Your task to perform on an android device: turn smart compose on in the gmail app Image 0: 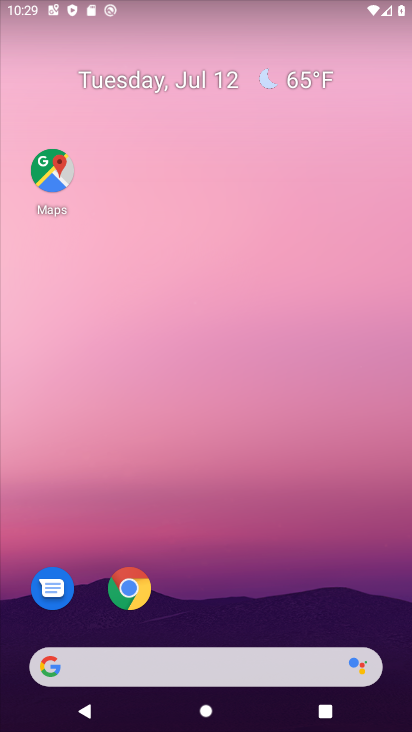
Step 0: drag from (28, 707) to (186, 0)
Your task to perform on an android device: turn smart compose on in the gmail app Image 1: 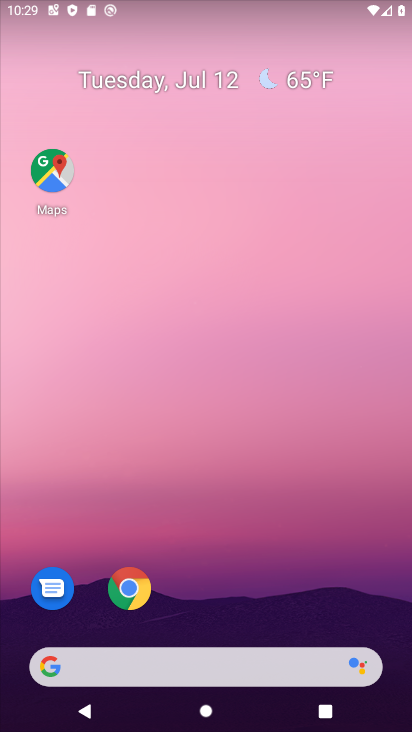
Step 1: drag from (14, 709) to (129, 282)
Your task to perform on an android device: turn smart compose on in the gmail app Image 2: 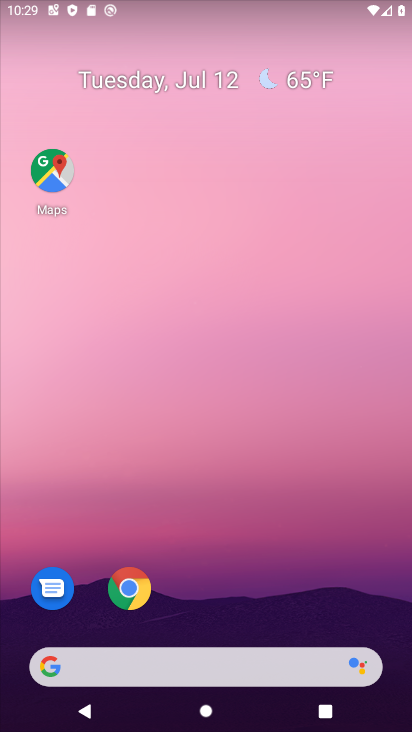
Step 2: drag from (35, 719) to (168, 1)
Your task to perform on an android device: turn smart compose on in the gmail app Image 3: 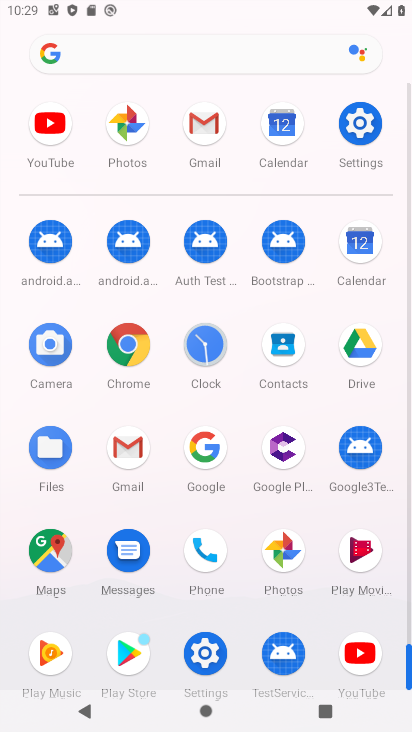
Step 3: click (117, 453)
Your task to perform on an android device: turn smart compose on in the gmail app Image 4: 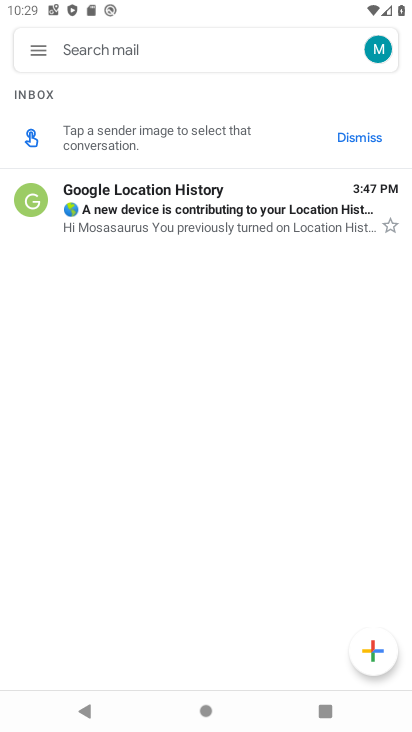
Step 4: click (26, 48)
Your task to perform on an android device: turn smart compose on in the gmail app Image 5: 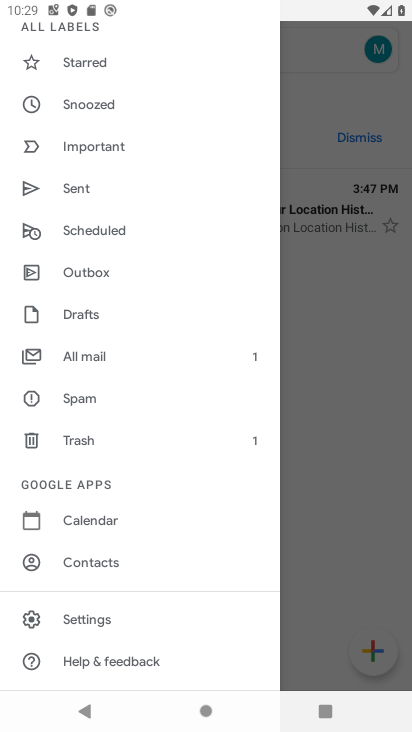
Step 5: click (364, 406)
Your task to perform on an android device: turn smart compose on in the gmail app Image 6: 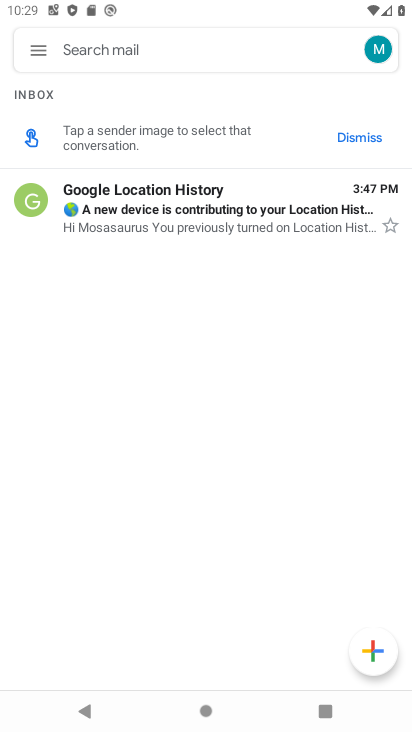
Step 6: task complete